Your task to perform on an android device: Search for seafood restaurants on Google Maps Image 0: 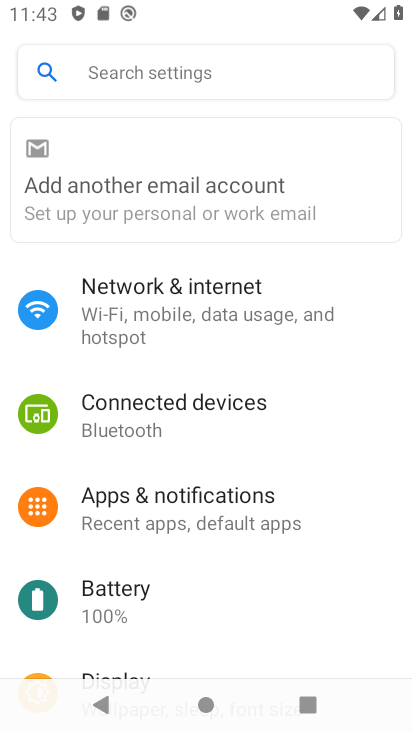
Step 0: press home button
Your task to perform on an android device: Search for seafood restaurants on Google Maps Image 1: 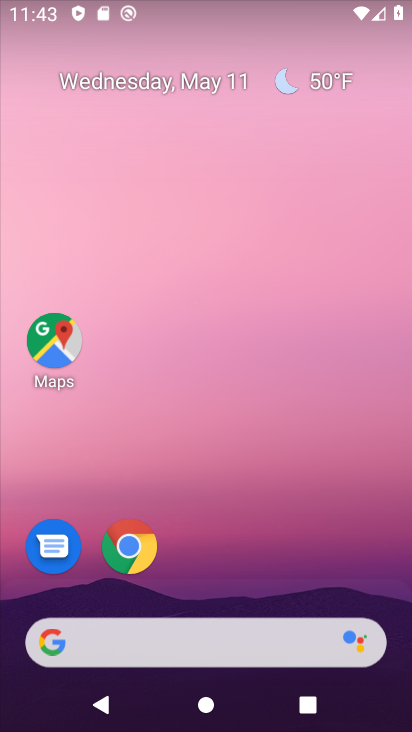
Step 1: drag from (267, 552) to (338, 103)
Your task to perform on an android device: Search for seafood restaurants on Google Maps Image 2: 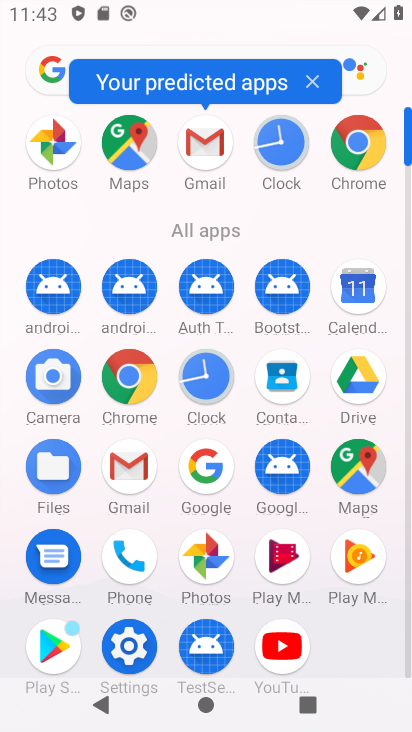
Step 2: click (346, 461)
Your task to perform on an android device: Search for seafood restaurants on Google Maps Image 3: 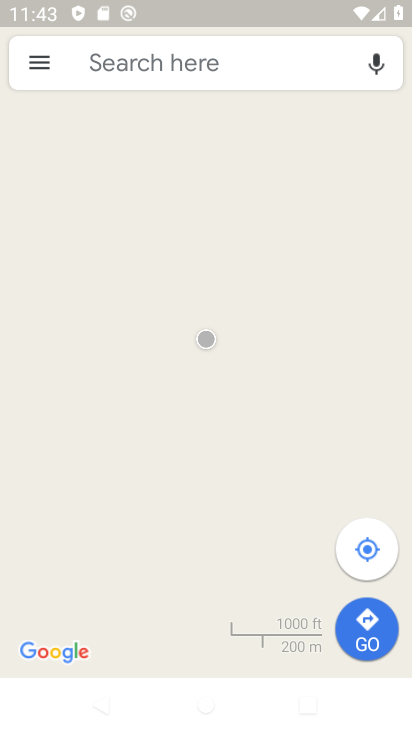
Step 3: click (129, 56)
Your task to perform on an android device: Search for seafood restaurants on Google Maps Image 4: 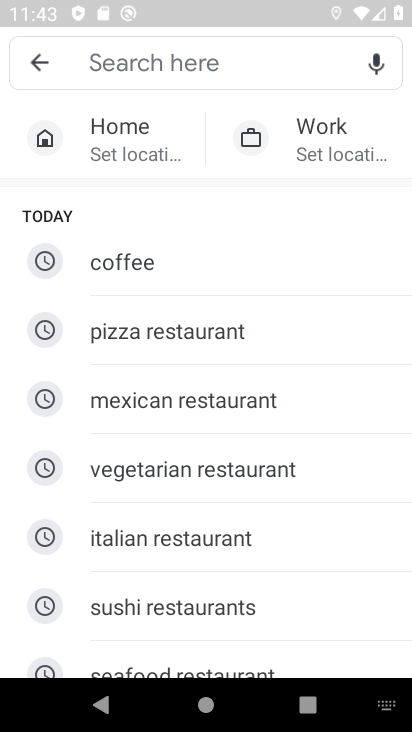
Step 4: type "seafood restaurant"
Your task to perform on an android device: Search for seafood restaurants on Google Maps Image 5: 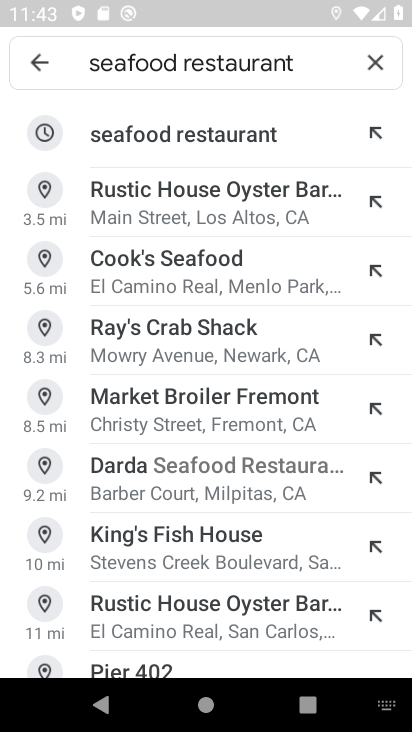
Step 5: click (230, 139)
Your task to perform on an android device: Search for seafood restaurants on Google Maps Image 6: 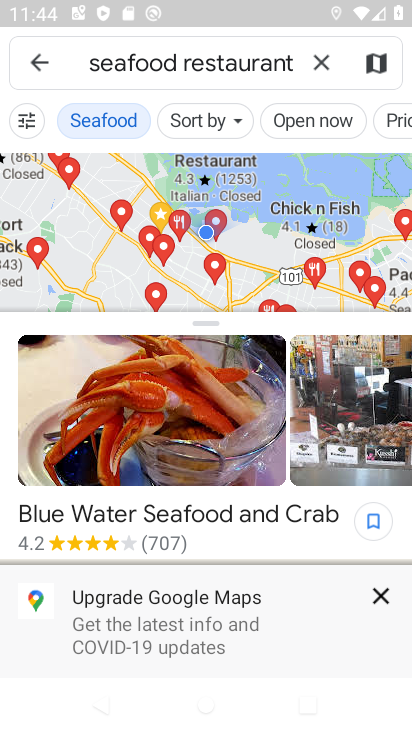
Step 6: task complete